Your task to perform on an android device: Open maps Image 0: 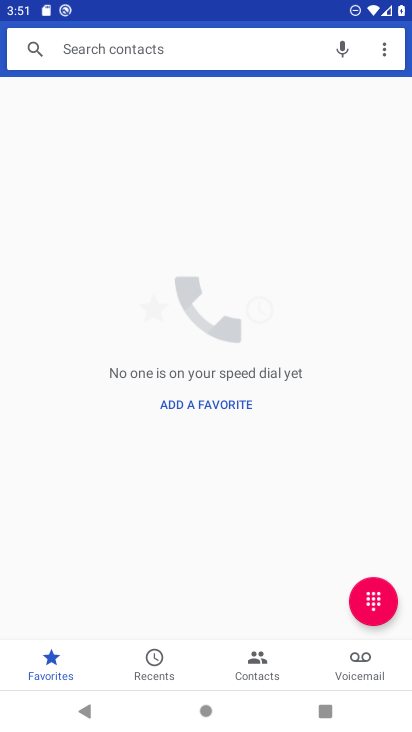
Step 0: press home button
Your task to perform on an android device: Open maps Image 1: 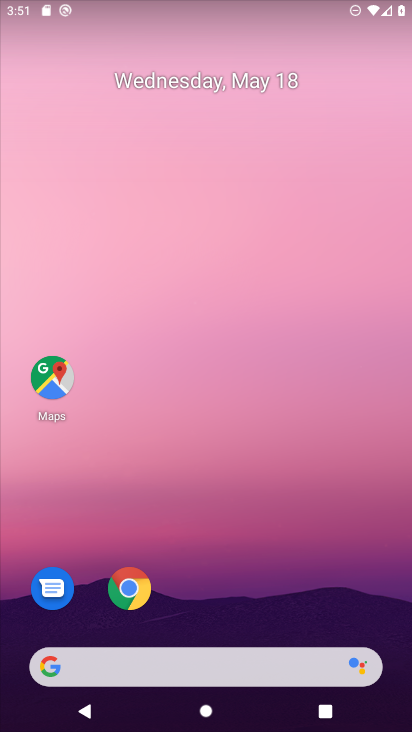
Step 1: click (57, 376)
Your task to perform on an android device: Open maps Image 2: 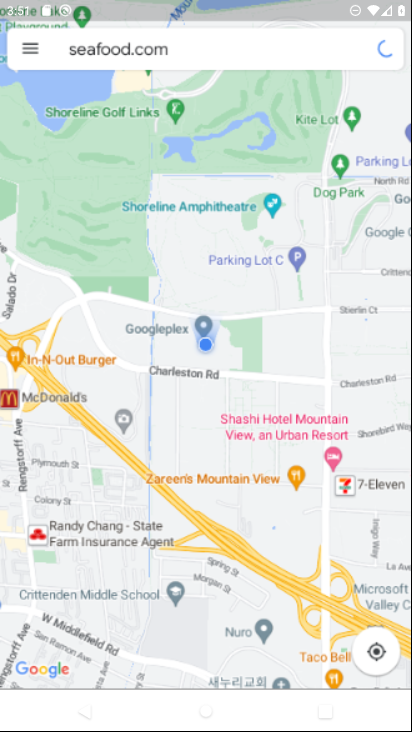
Step 2: task complete